Your task to perform on an android device: toggle improve location accuracy Image 0: 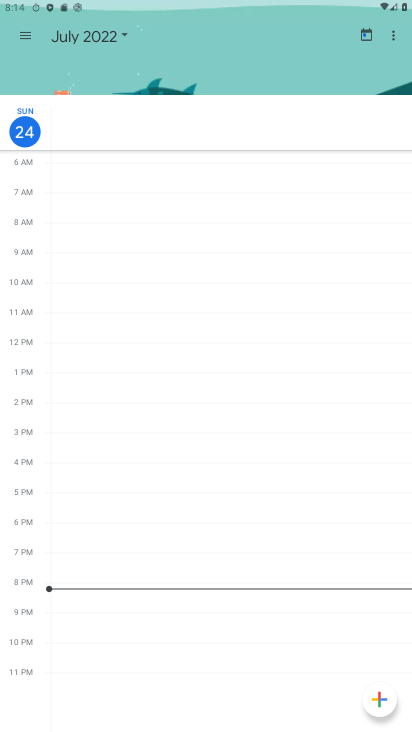
Step 0: press back button
Your task to perform on an android device: toggle improve location accuracy Image 1: 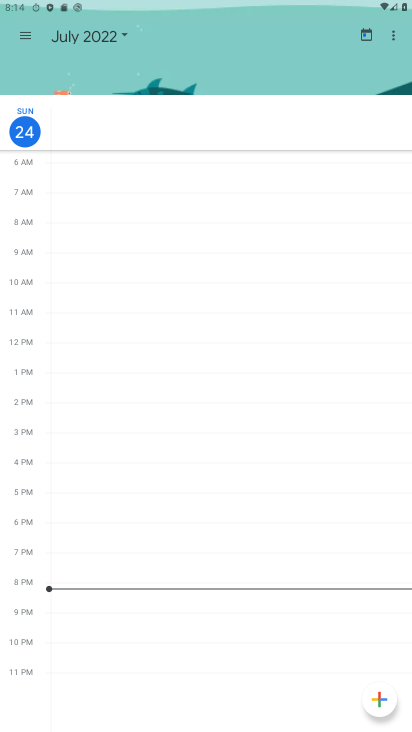
Step 1: press back button
Your task to perform on an android device: toggle improve location accuracy Image 2: 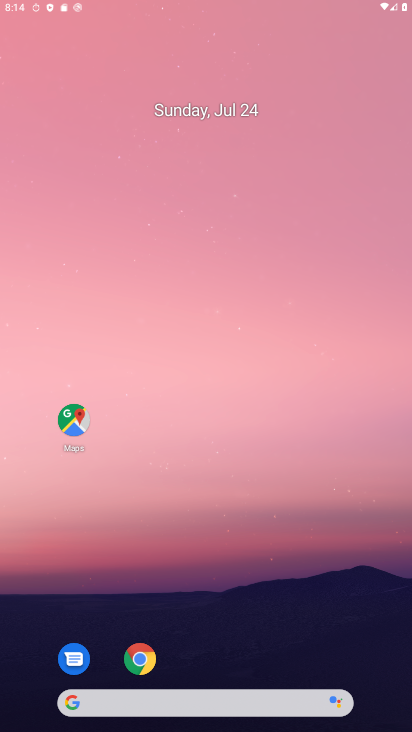
Step 2: press back button
Your task to perform on an android device: toggle improve location accuracy Image 3: 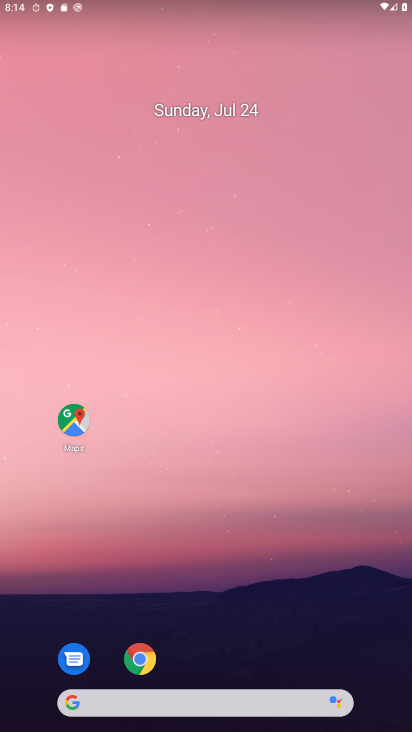
Step 3: drag from (226, 447) to (189, 127)
Your task to perform on an android device: toggle improve location accuracy Image 4: 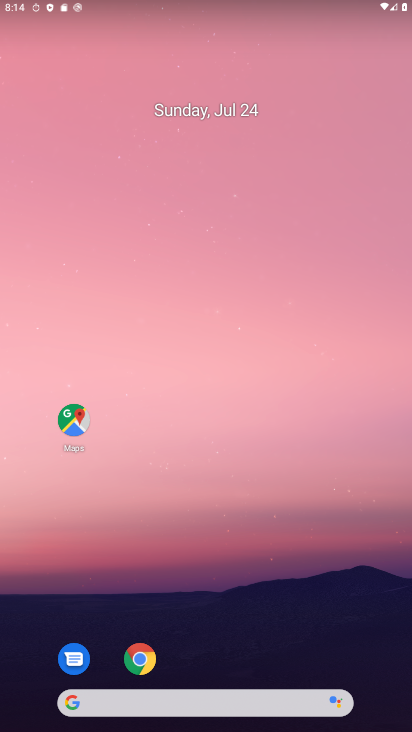
Step 4: drag from (137, 540) to (41, 116)
Your task to perform on an android device: toggle improve location accuracy Image 5: 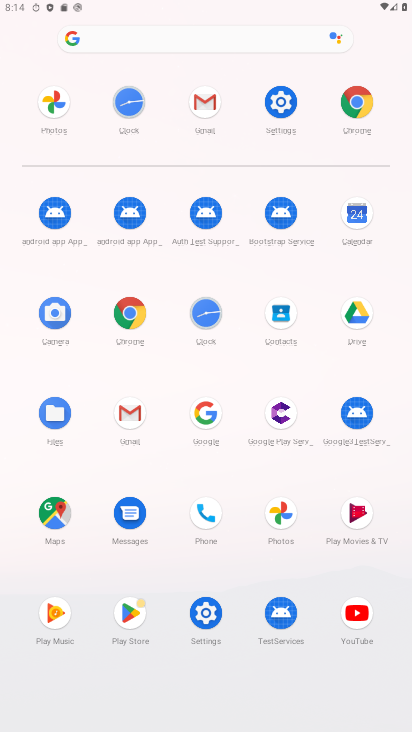
Step 5: click (285, 101)
Your task to perform on an android device: toggle improve location accuracy Image 6: 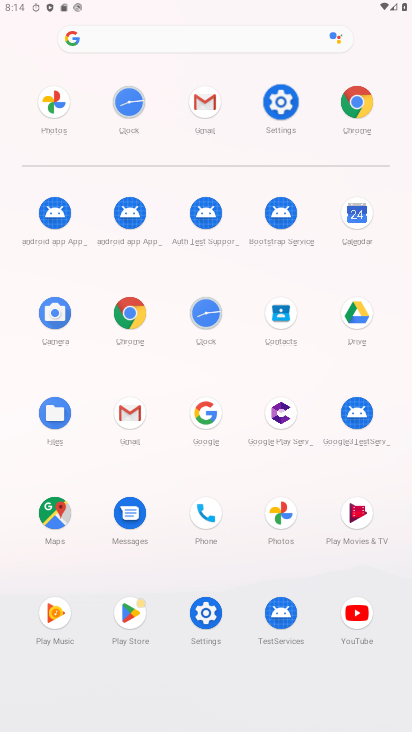
Step 6: click (284, 102)
Your task to perform on an android device: toggle improve location accuracy Image 7: 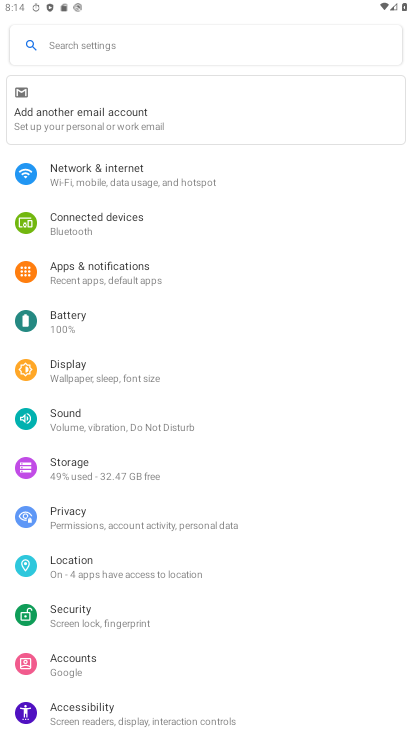
Step 7: click (81, 564)
Your task to perform on an android device: toggle improve location accuracy Image 8: 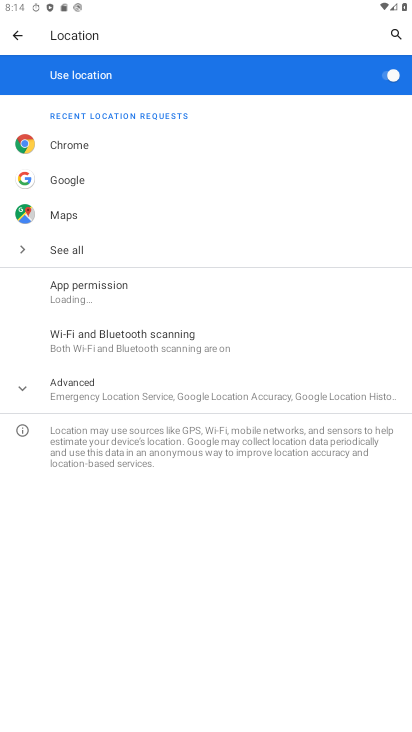
Step 8: click (71, 382)
Your task to perform on an android device: toggle improve location accuracy Image 9: 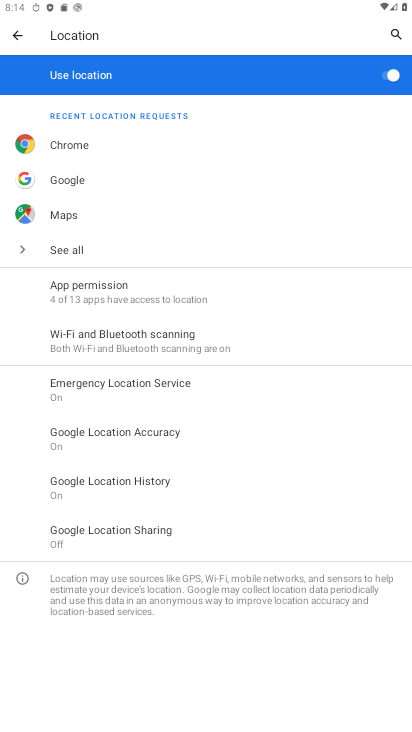
Step 9: click (149, 427)
Your task to perform on an android device: toggle improve location accuracy Image 10: 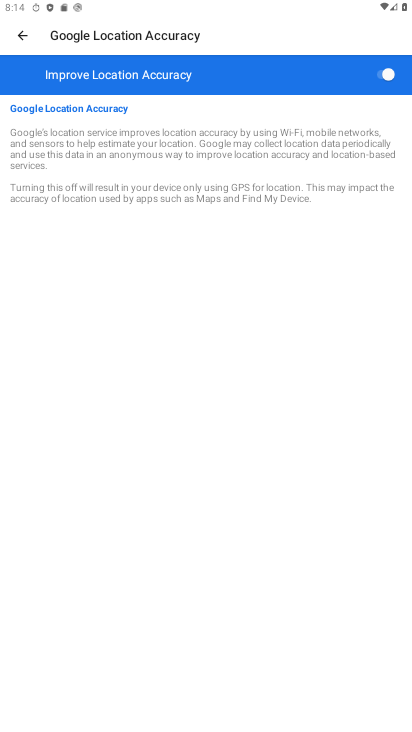
Step 10: click (394, 68)
Your task to perform on an android device: toggle improve location accuracy Image 11: 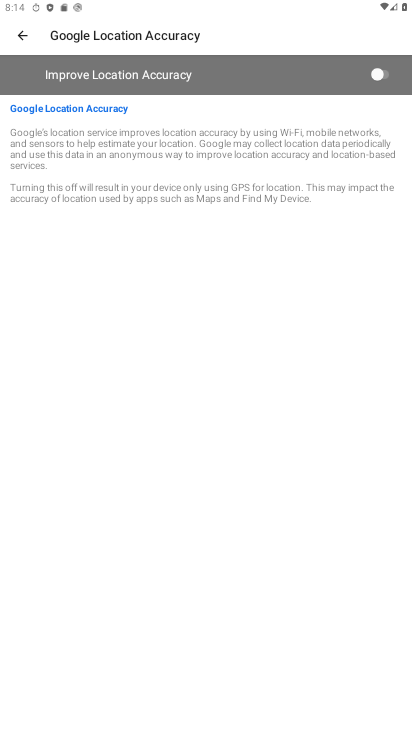
Step 11: task complete